Your task to perform on an android device: Open Android settings Image 0: 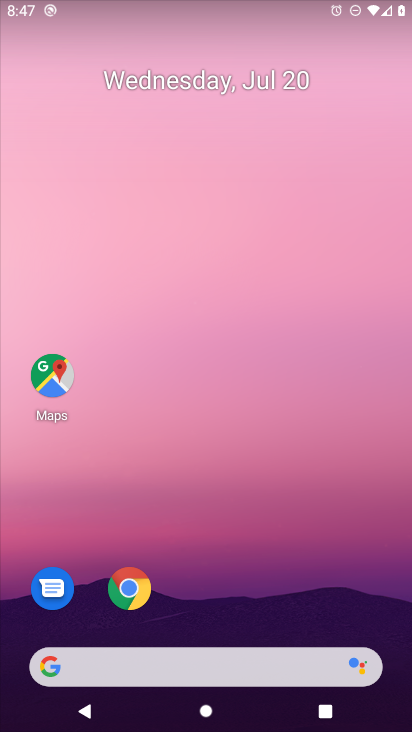
Step 0: drag from (41, 696) to (283, 175)
Your task to perform on an android device: Open Android settings Image 1: 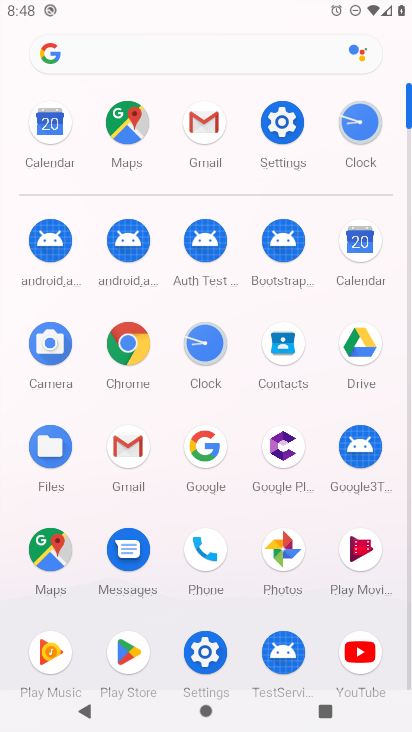
Step 1: click (213, 654)
Your task to perform on an android device: Open Android settings Image 2: 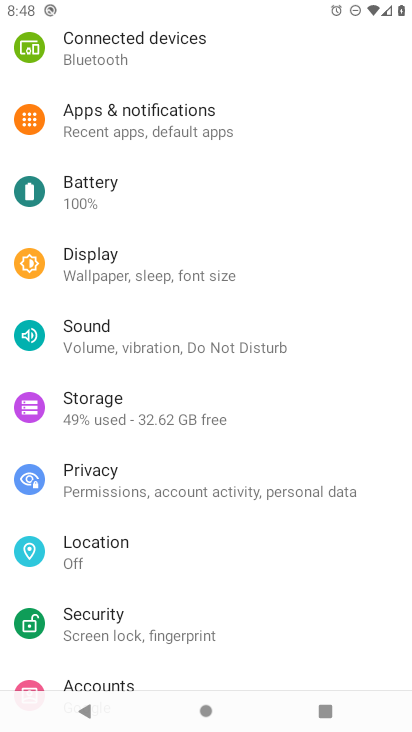
Step 2: drag from (197, 661) to (312, 8)
Your task to perform on an android device: Open Android settings Image 3: 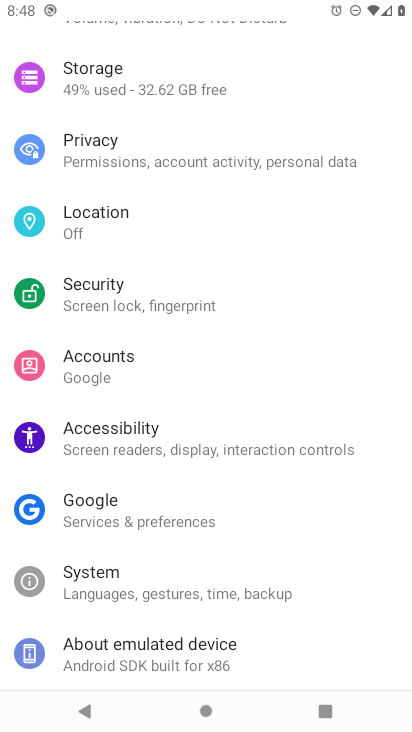
Step 3: drag from (191, 578) to (243, 324)
Your task to perform on an android device: Open Android settings Image 4: 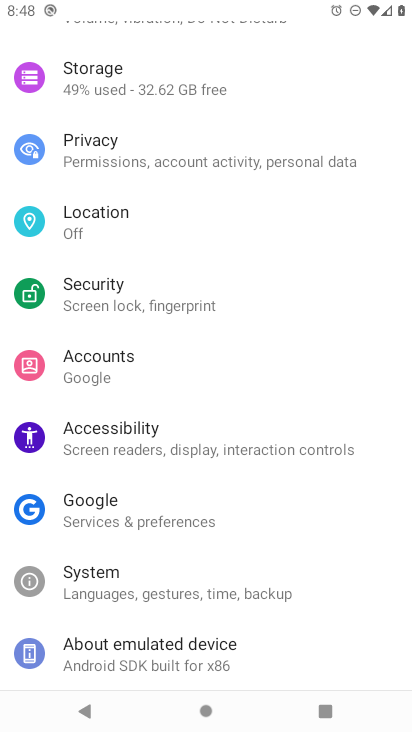
Step 4: click (101, 654)
Your task to perform on an android device: Open Android settings Image 5: 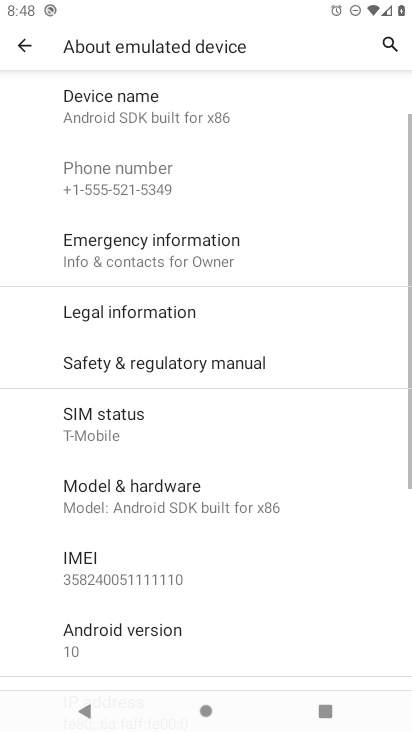
Step 5: click (155, 639)
Your task to perform on an android device: Open Android settings Image 6: 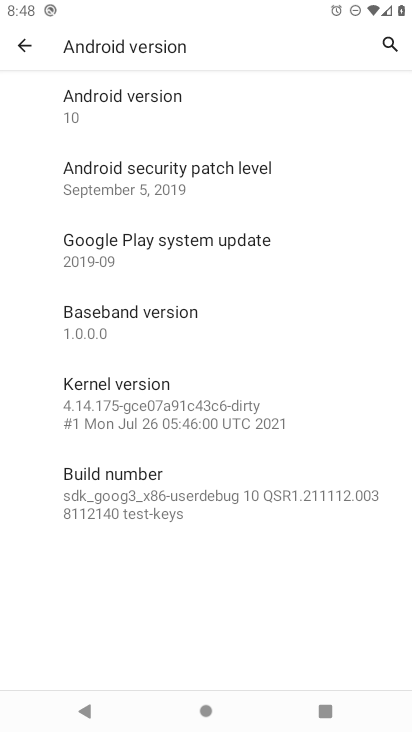
Step 6: task complete